Your task to perform on an android device: open app "TextNow: Call + Text Unlimited" Image 0: 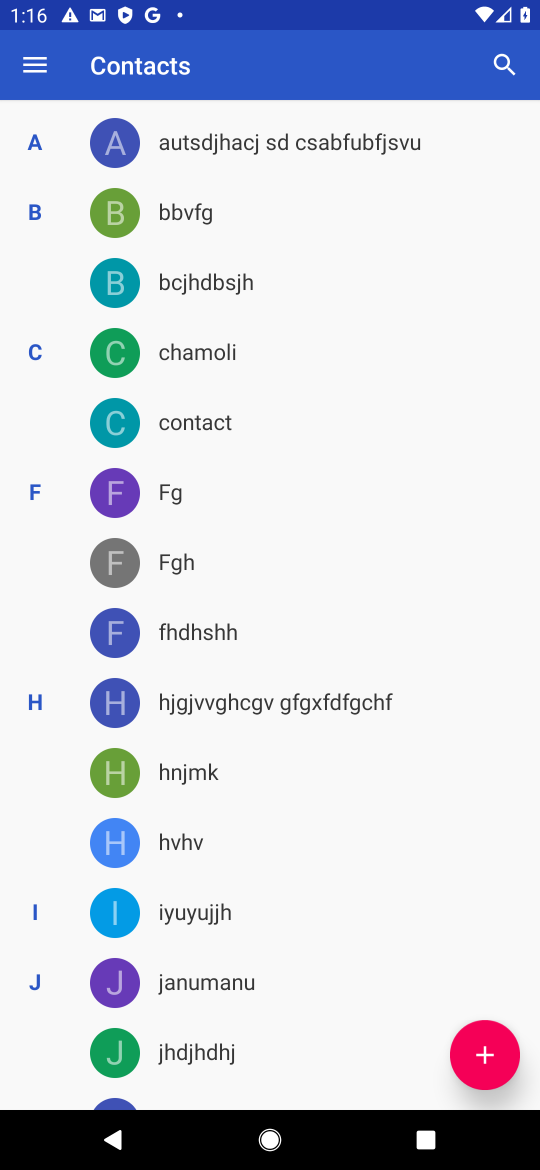
Step 0: press home button
Your task to perform on an android device: open app "TextNow: Call + Text Unlimited" Image 1: 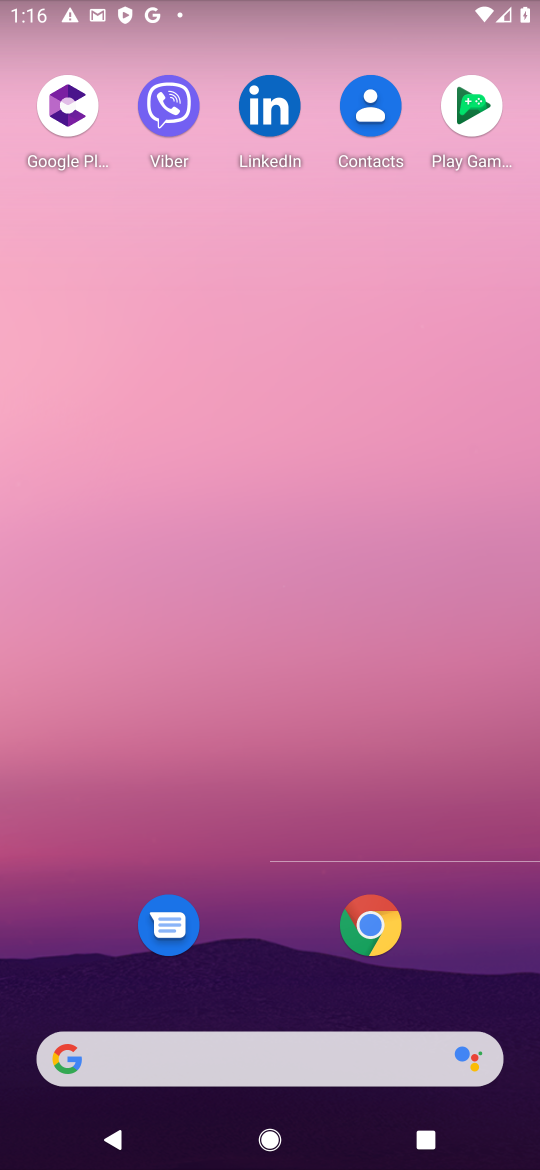
Step 1: drag from (465, 1083) to (479, 22)
Your task to perform on an android device: open app "TextNow: Call + Text Unlimited" Image 2: 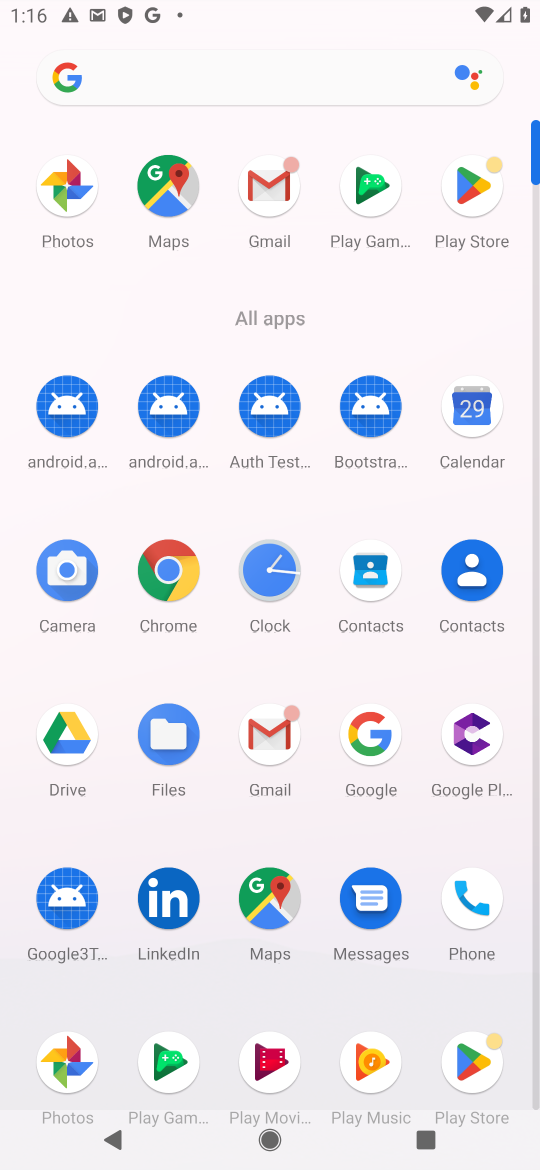
Step 2: click (461, 1071)
Your task to perform on an android device: open app "TextNow: Call + Text Unlimited" Image 3: 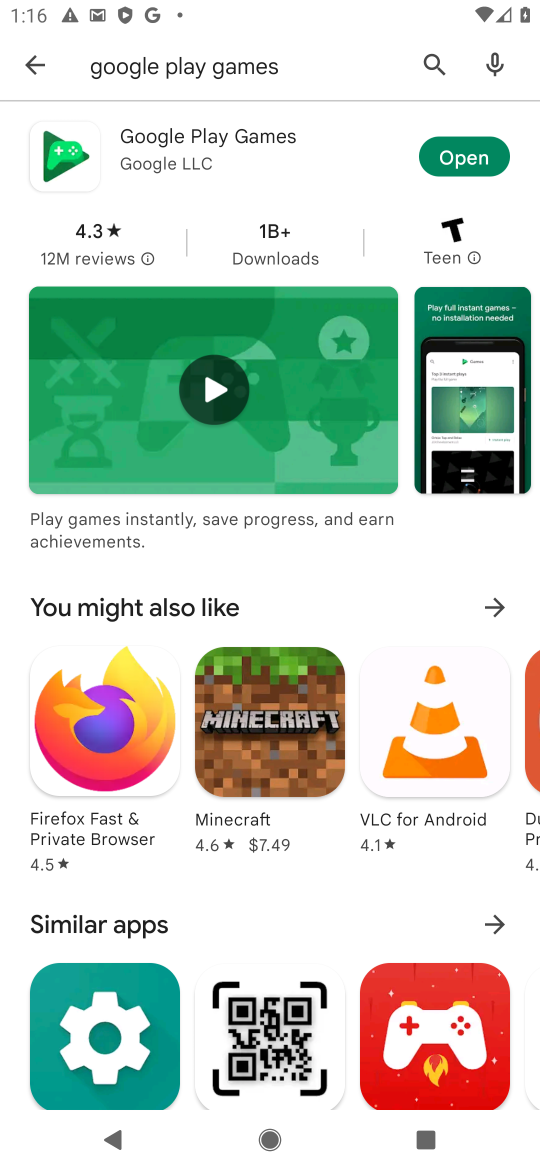
Step 3: click (423, 48)
Your task to perform on an android device: open app "TextNow: Call + Text Unlimited" Image 4: 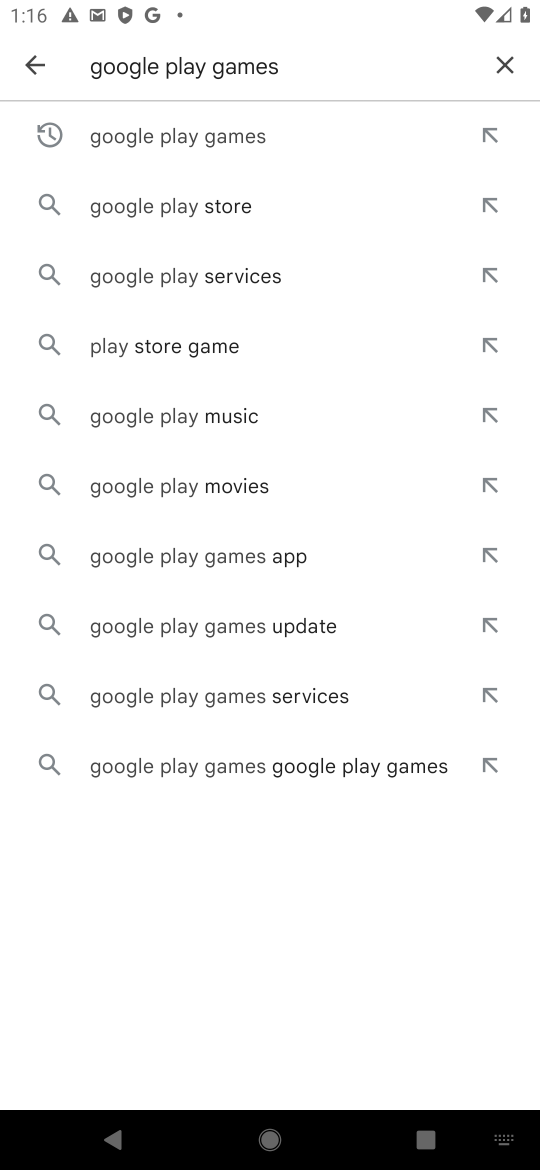
Step 4: click (504, 65)
Your task to perform on an android device: open app "TextNow: Call + Text Unlimited" Image 5: 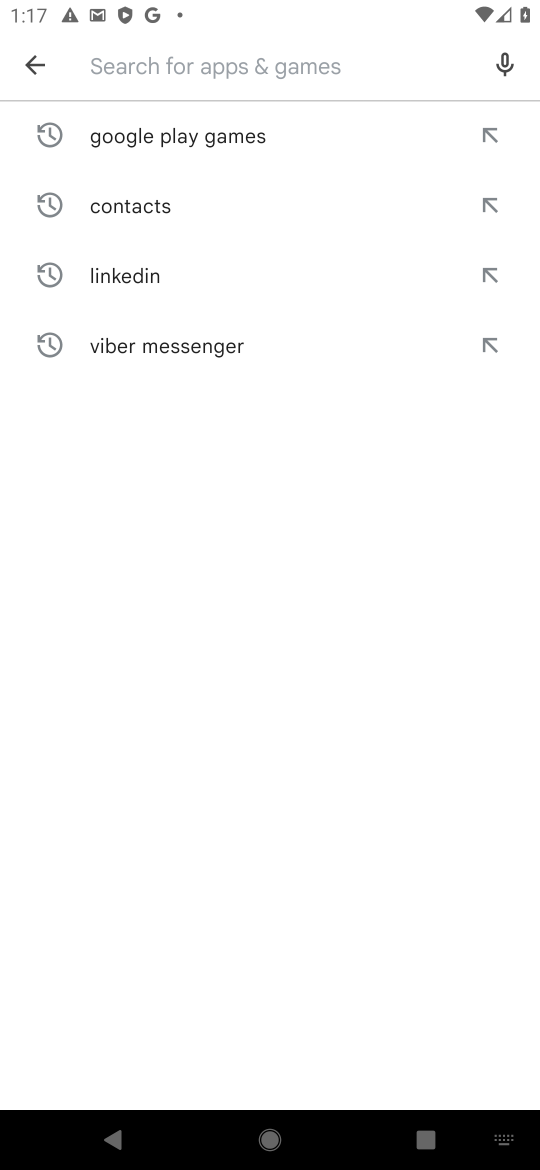
Step 5: type "textnow: call + text unlimited"
Your task to perform on an android device: open app "TextNow: Call + Text Unlimited" Image 6: 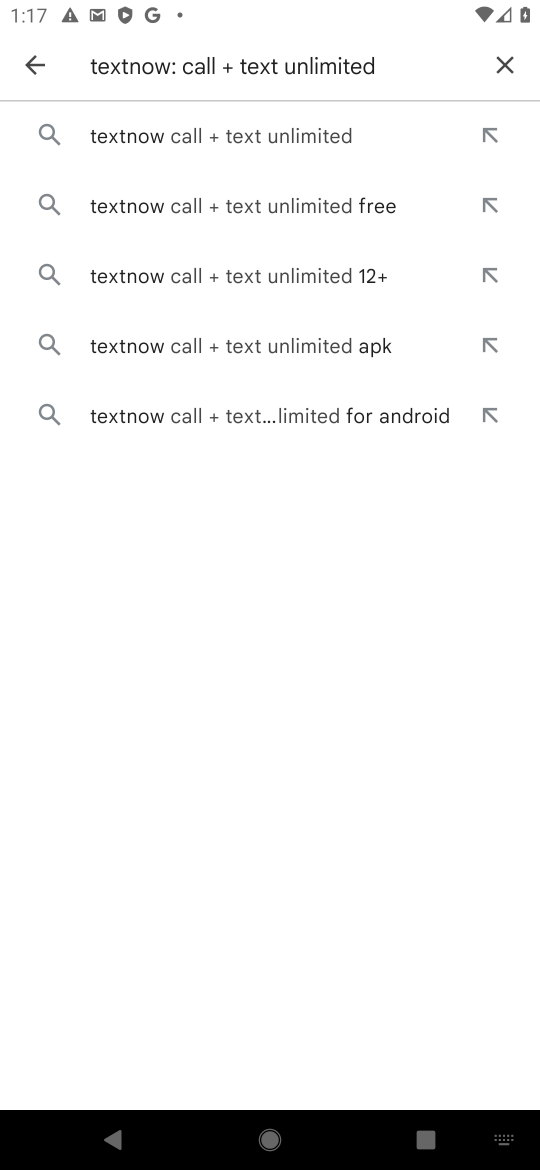
Step 6: click (280, 127)
Your task to perform on an android device: open app "TextNow: Call + Text Unlimited" Image 7: 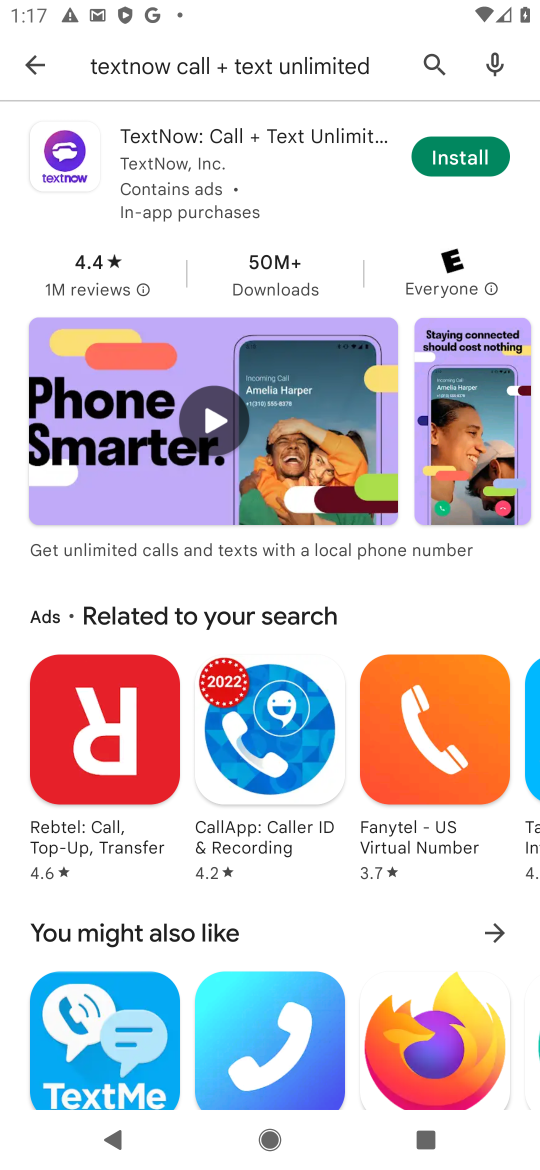
Step 7: task complete